Your task to perform on an android device: Is it going to rain today? Image 0: 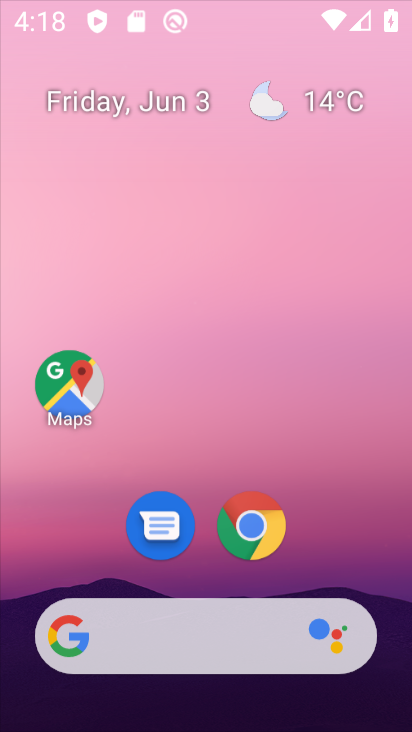
Step 0: drag from (361, 36) to (328, 9)
Your task to perform on an android device: Is it going to rain today? Image 1: 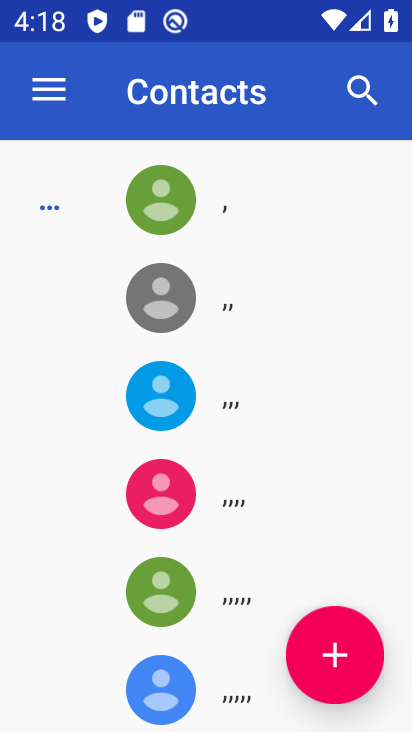
Step 1: press home button
Your task to perform on an android device: Is it going to rain today? Image 2: 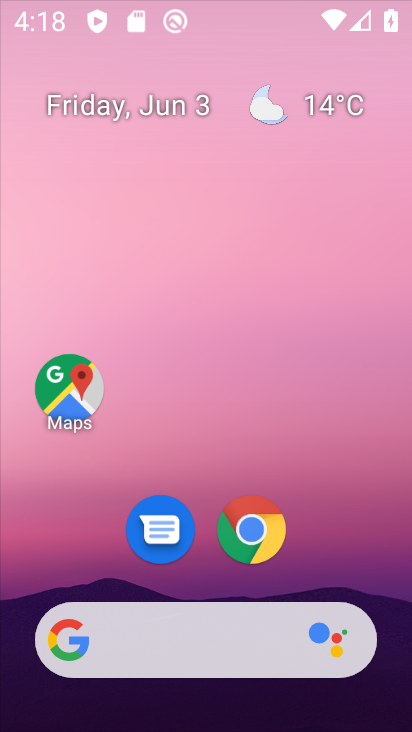
Step 2: click (302, 101)
Your task to perform on an android device: Is it going to rain today? Image 3: 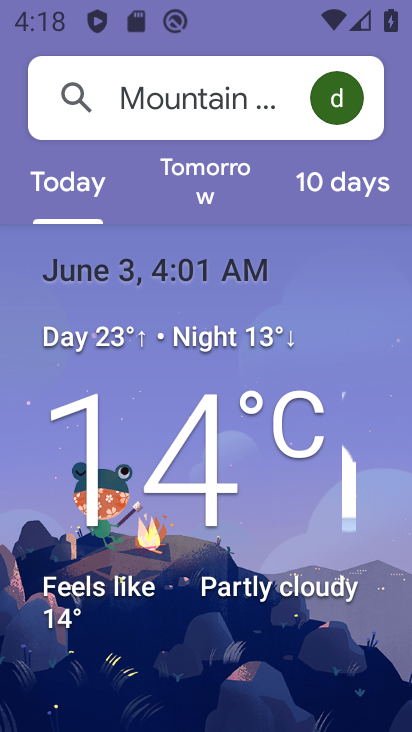
Step 3: task complete